Your task to perform on an android device: When is my next meeting? Image 0: 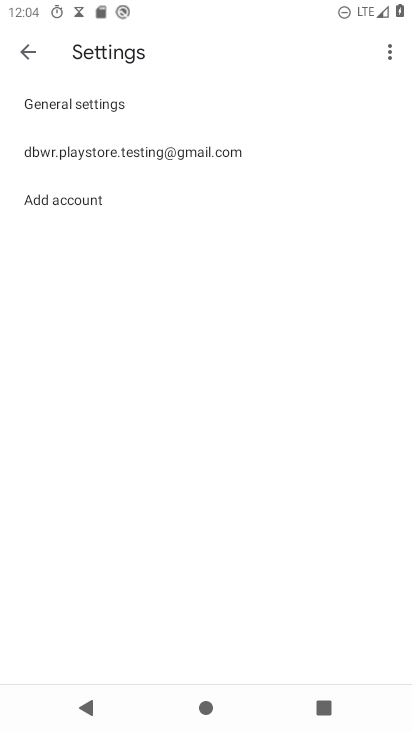
Step 0: press home button
Your task to perform on an android device: When is my next meeting? Image 1: 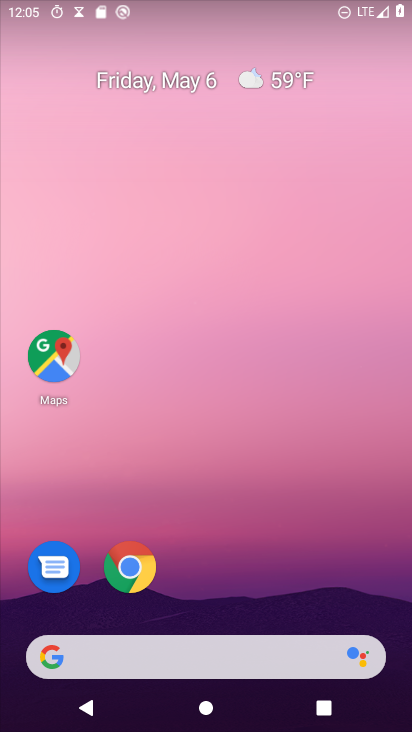
Step 1: drag from (347, 590) to (335, 17)
Your task to perform on an android device: When is my next meeting? Image 2: 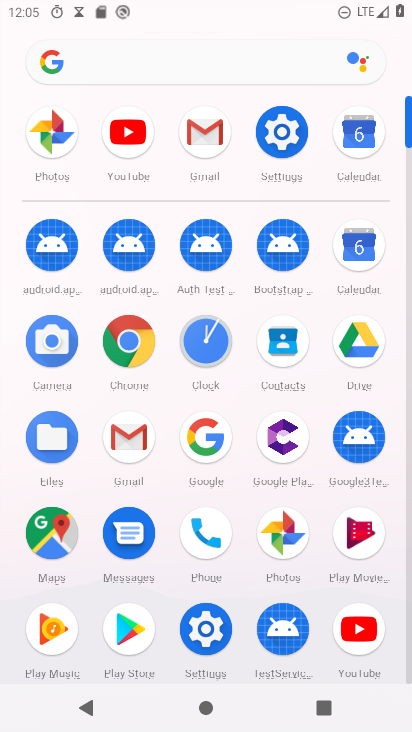
Step 2: click (365, 132)
Your task to perform on an android device: When is my next meeting? Image 3: 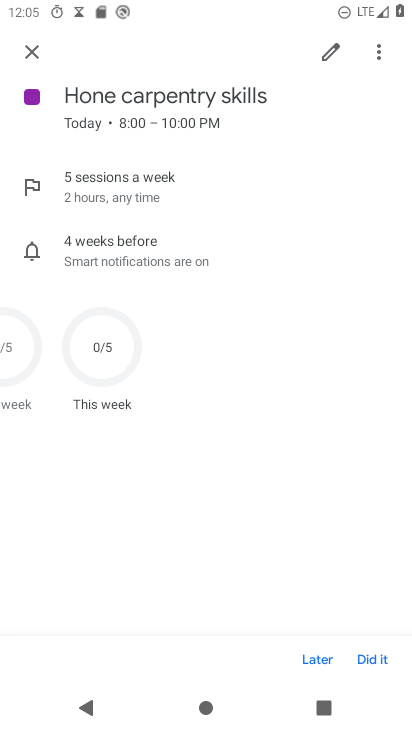
Step 3: click (35, 50)
Your task to perform on an android device: When is my next meeting? Image 4: 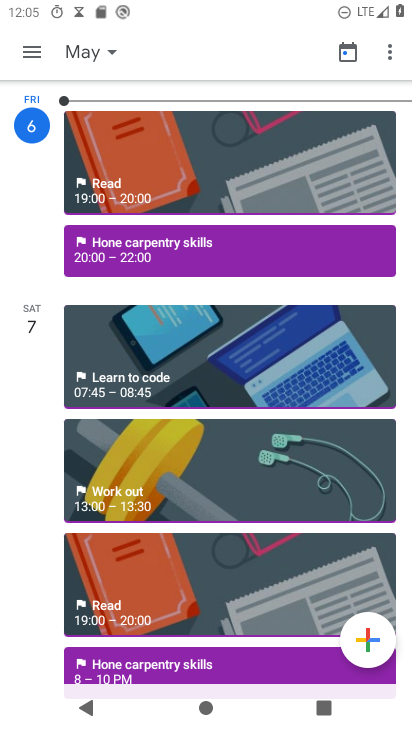
Step 4: drag from (221, 344) to (221, 279)
Your task to perform on an android device: When is my next meeting? Image 5: 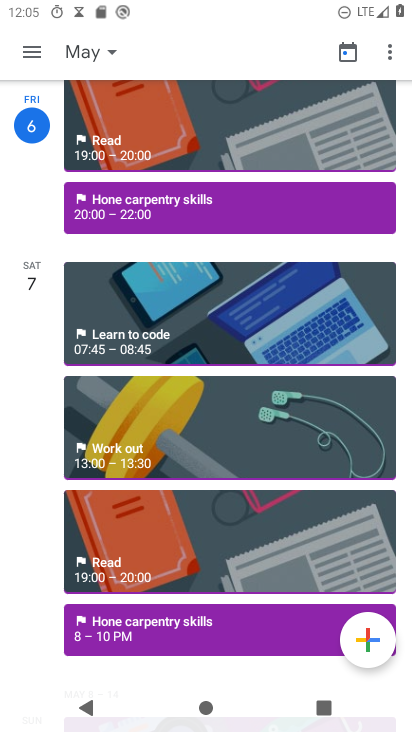
Step 5: drag from (209, 572) to (210, 177)
Your task to perform on an android device: When is my next meeting? Image 6: 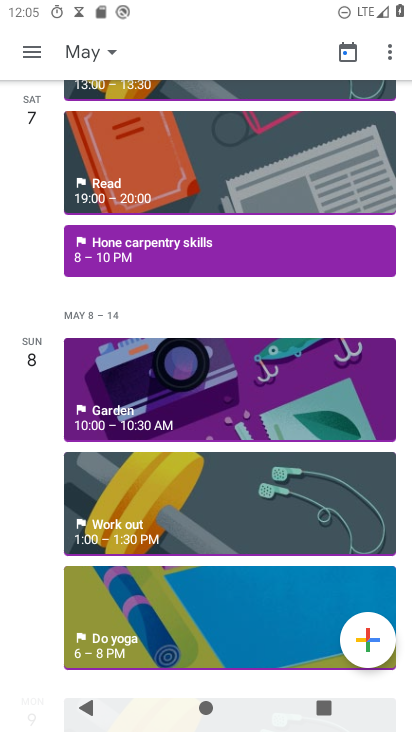
Step 6: drag from (191, 512) to (189, 208)
Your task to perform on an android device: When is my next meeting? Image 7: 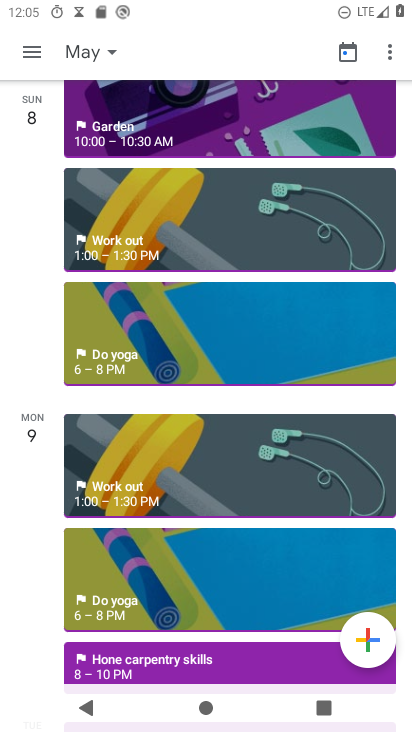
Step 7: drag from (189, 554) to (210, 250)
Your task to perform on an android device: When is my next meeting? Image 8: 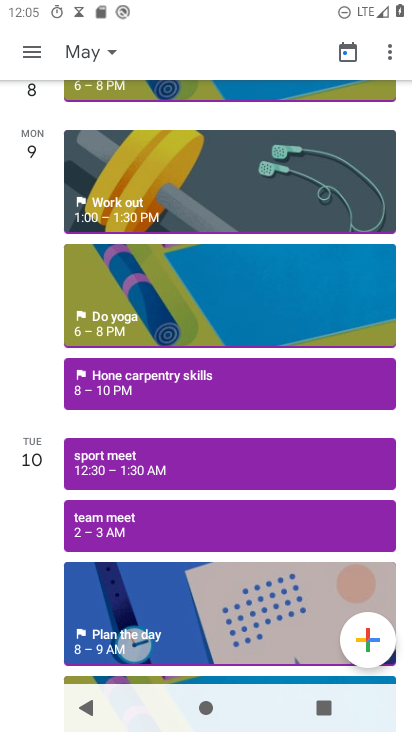
Step 8: click (138, 465)
Your task to perform on an android device: When is my next meeting? Image 9: 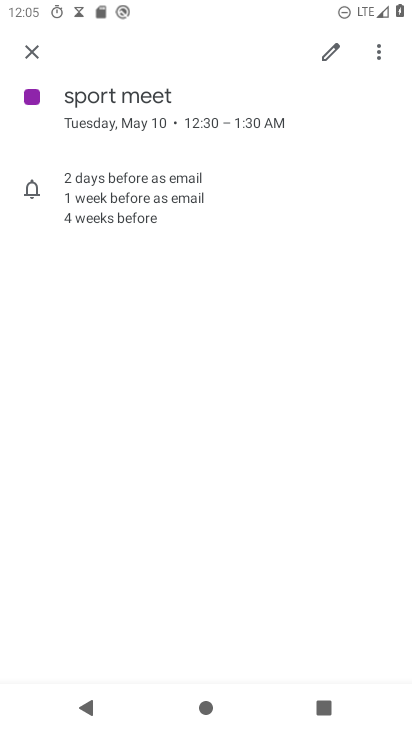
Step 9: task complete